Your task to perform on an android device: Open location settings Image 0: 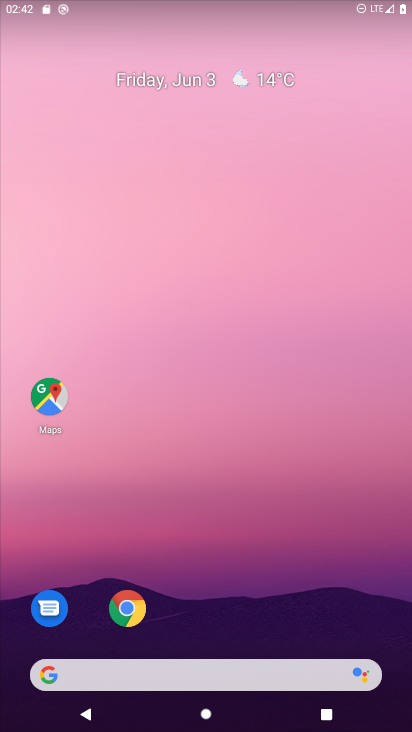
Step 0: drag from (261, 570) to (262, 131)
Your task to perform on an android device: Open location settings Image 1: 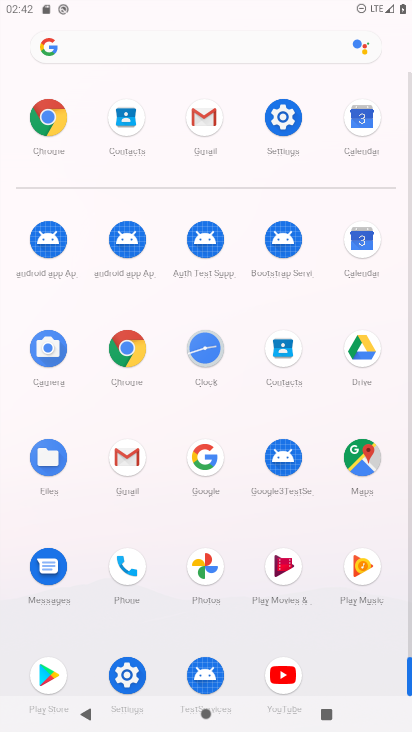
Step 1: click (289, 108)
Your task to perform on an android device: Open location settings Image 2: 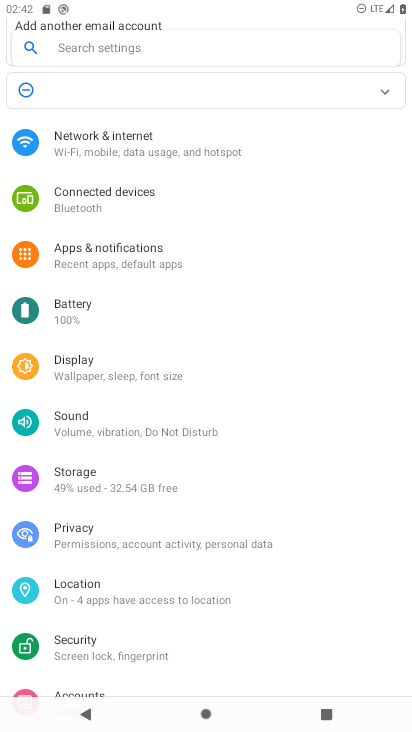
Step 2: click (152, 596)
Your task to perform on an android device: Open location settings Image 3: 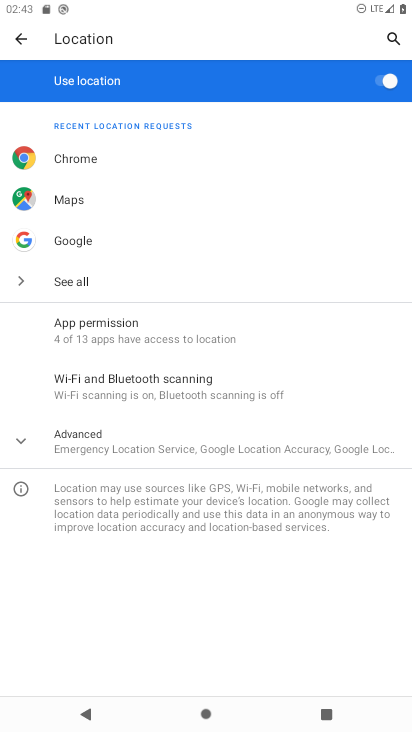
Step 3: task complete